Your task to perform on an android device: Go to settings Image 0: 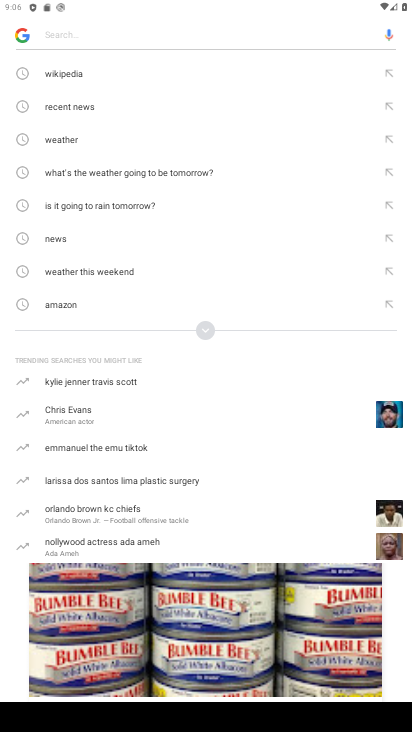
Step 0: press home button
Your task to perform on an android device: Go to settings Image 1: 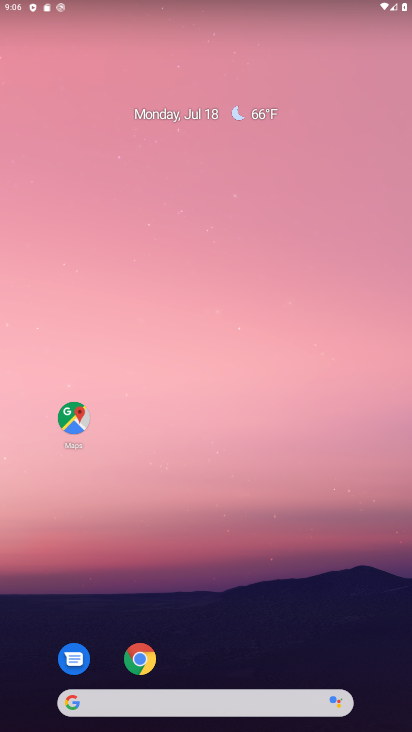
Step 1: drag from (224, 573) to (195, 195)
Your task to perform on an android device: Go to settings Image 2: 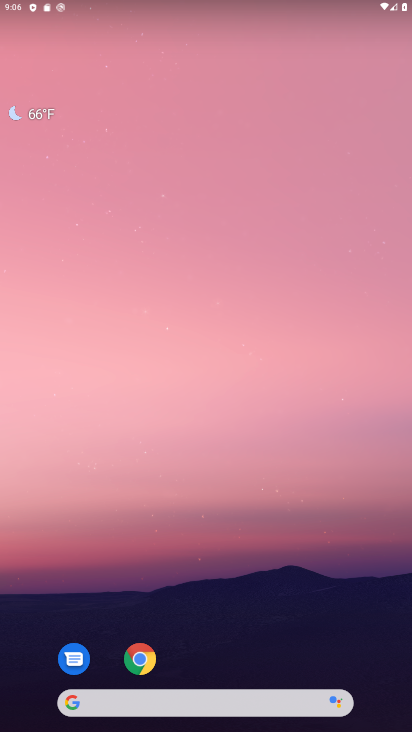
Step 2: click (211, 286)
Your task to perform on an android device: Go to settings Image 3: 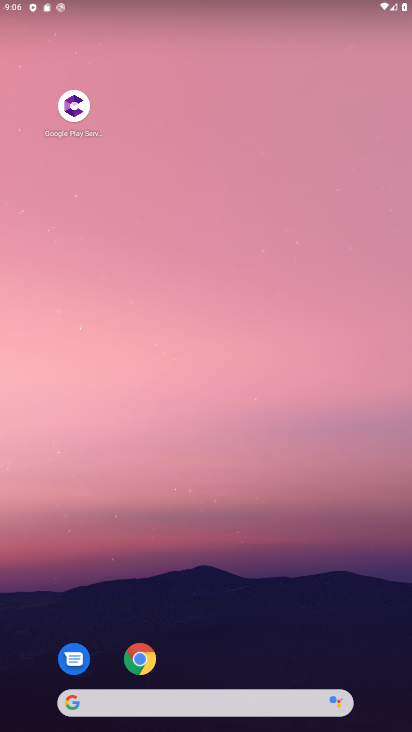
Step 3: drag from (205, 605) to (186, 46)
Your task to perform on an android device: Go to settings Image 4: 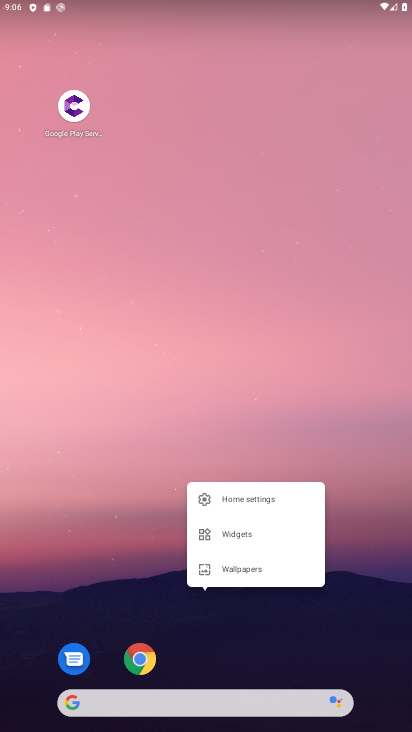
Step 4: click (216, 441)
Your task to perform on an android device: Go to settings Image 5: 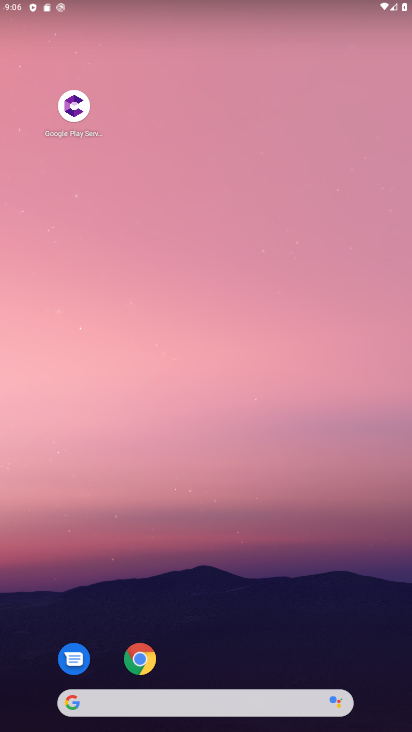
Step 5: drag from (247, 569) to (253, 40)
Your task to perform on an android device: Go to settings Image 6: 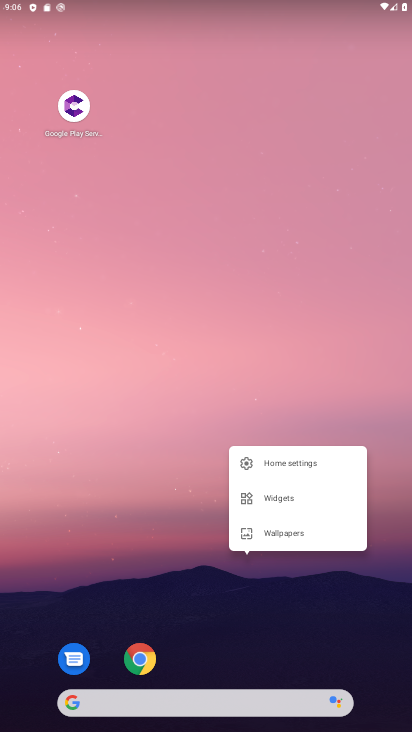
Step 6: click (217, 342)
Your task to perform on an android device: Go to settings Image 7: 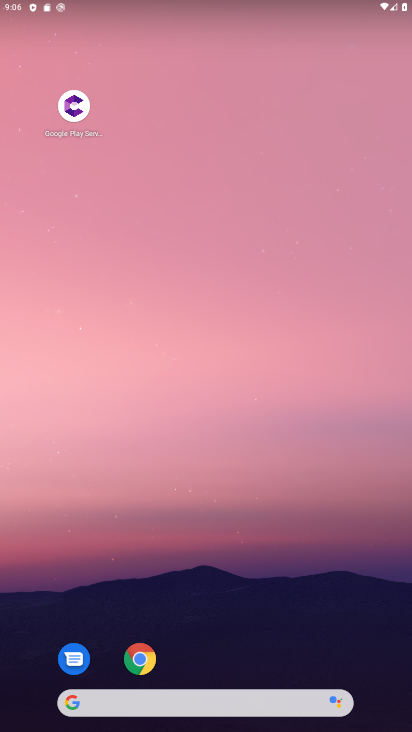
Step 7: drag from (237, 583) to (289, 8)
Your task to perform on an android device: Go to settings Image 8: 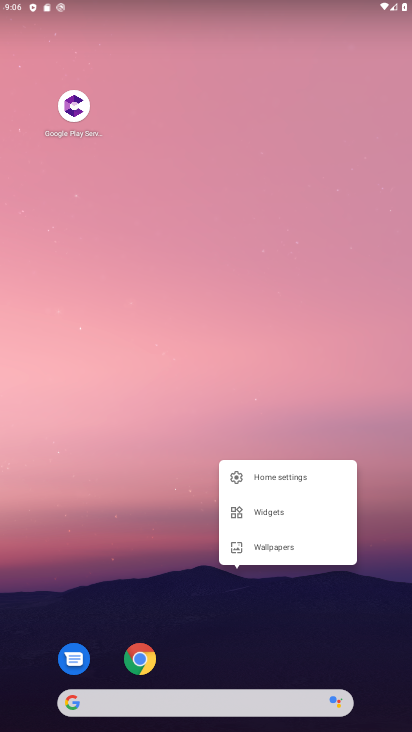
Step 8: click (255, 240)
Your task to perform on an android device: Go to settings Image 9: 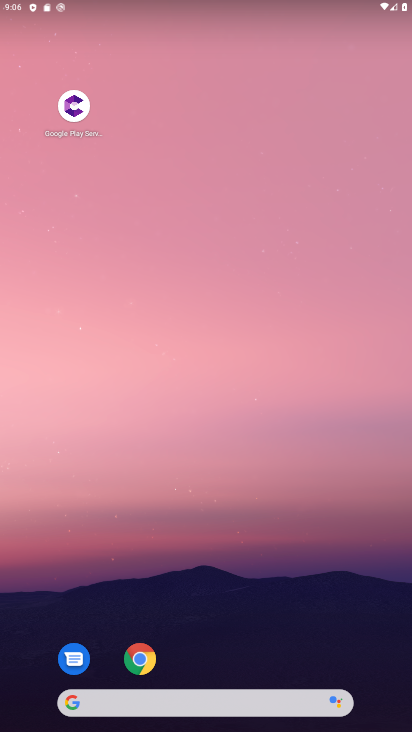
Step 9: drag from (247, 622) to (204, 87)
Your task to perform on an android device: Go to settings Image 10: 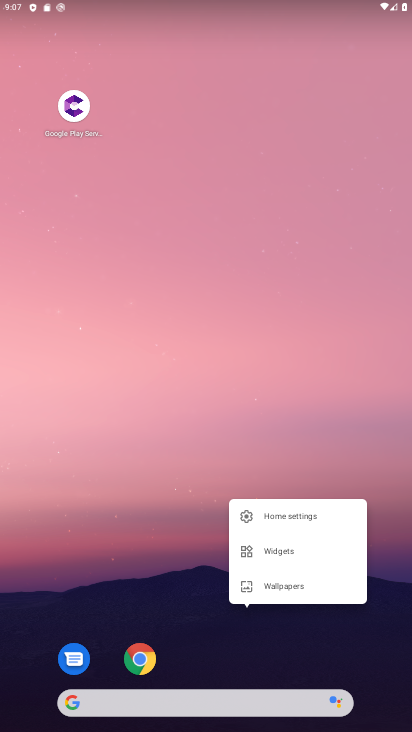
Step 10: click (206, 564)
Your task to perform on an android device: Go to settings Image 11: 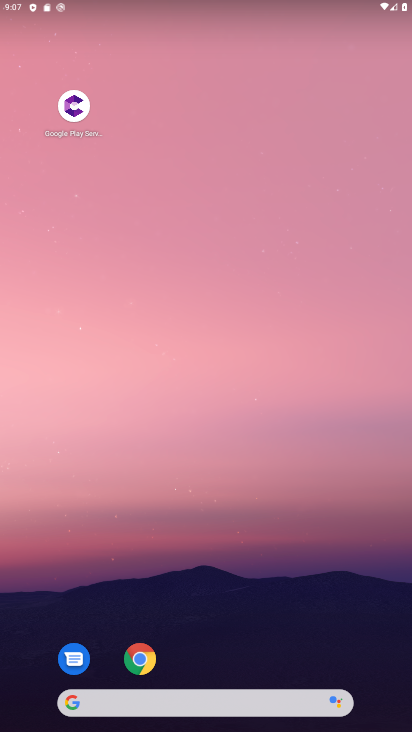
Step 11: click (206, 564)
Your task to perform on an android device: Go to settings Image 12: 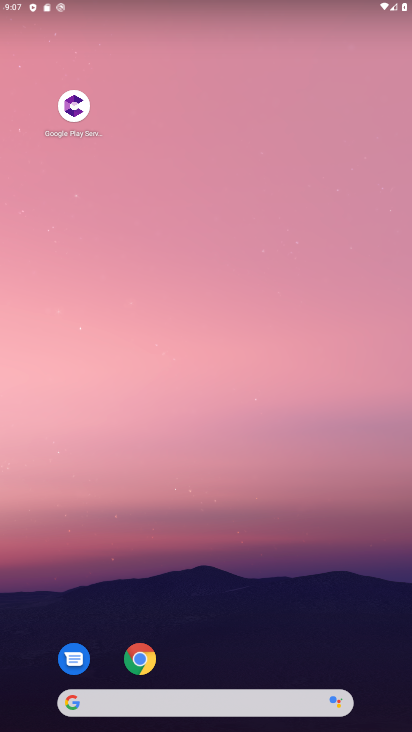
Step 12: drag from (243, 480) to (262, 108)
Your task to perform on an android device: Go to settings Image 13: 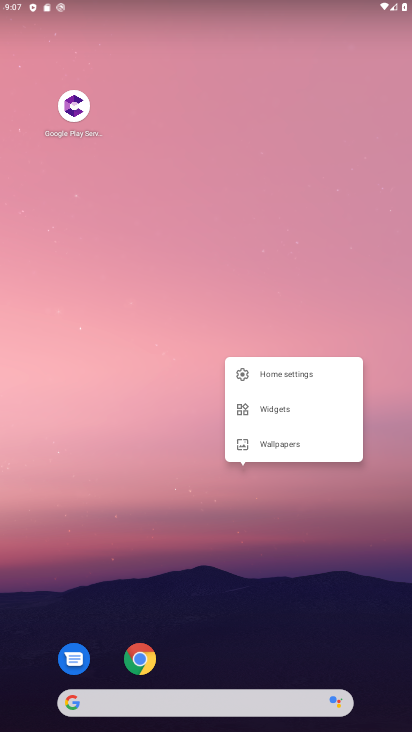
Step 13: click (234, 223)
Your task to perform on an android device: Go to settings Image 14: 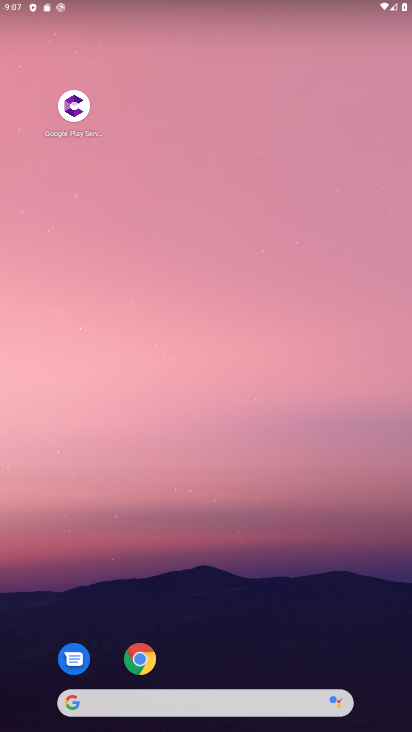
Step 14: drag from (287, 617) to (262, 260)
Your task to perform on an android device: Go to settings Image 15: 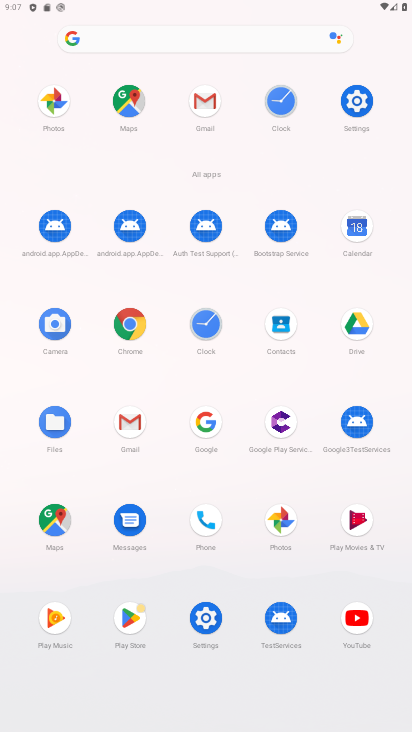
Step 15: click (208, 625)
Your task to perform on an android device: Go to settings Image 16: 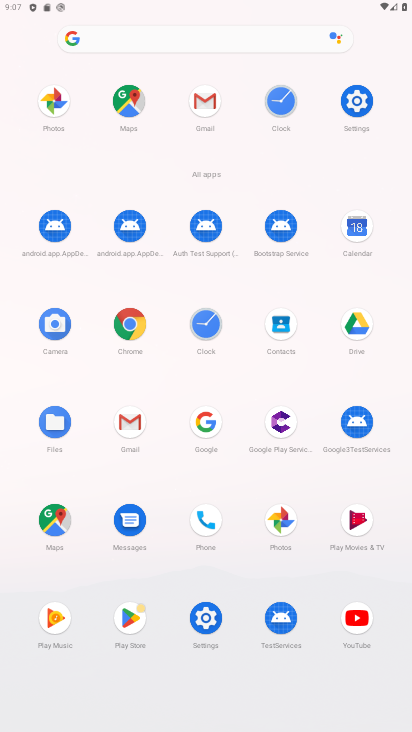
Step 16: click (208, 625)
Your task to perform on an android device: Go to settings Image 17: 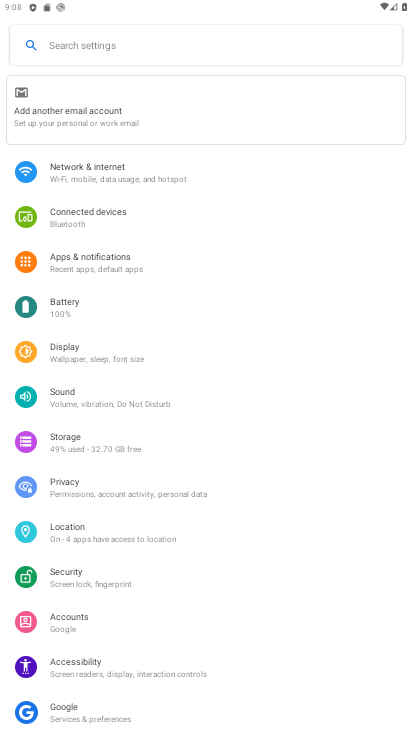
Step 17: task complete